Your task to perform on an android device: check android version Image 0: 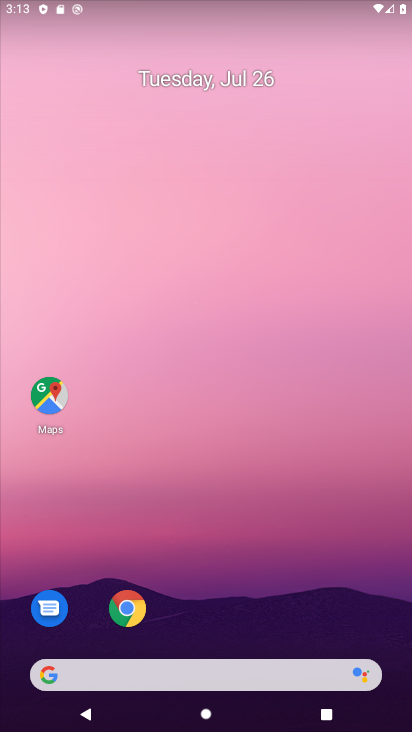
Step 0: drag from (381, 589) to (379, 139)
Your task to perform on an android device: check android version Image 1: 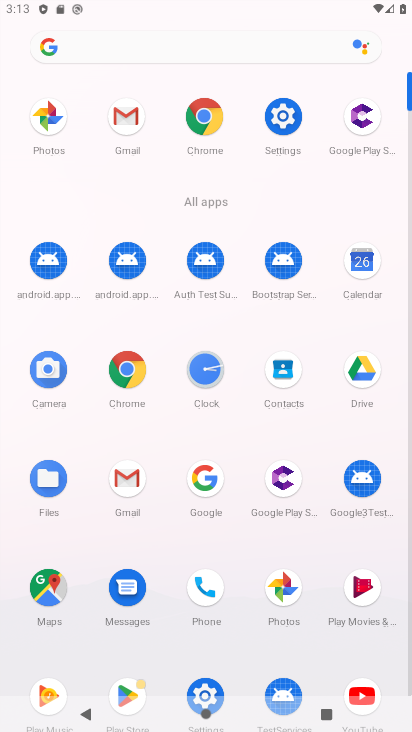
Step 1: click (205, 685)
Your task to perform on an android device: check android version Image 2: 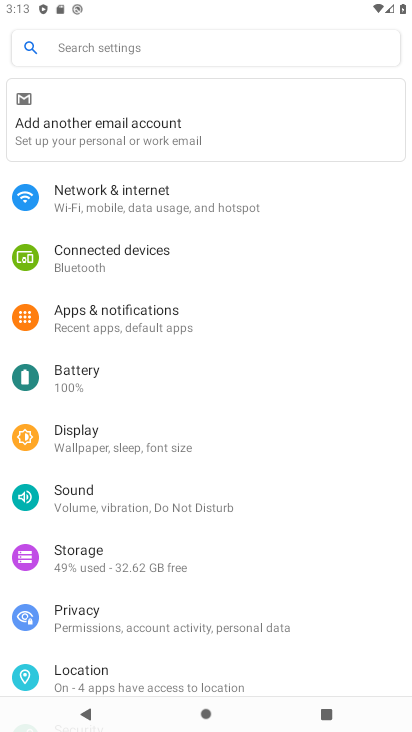
Step 2: drag from (285, 606) to (251, 219)
Your task to perform on an android device: check android version Image 3: 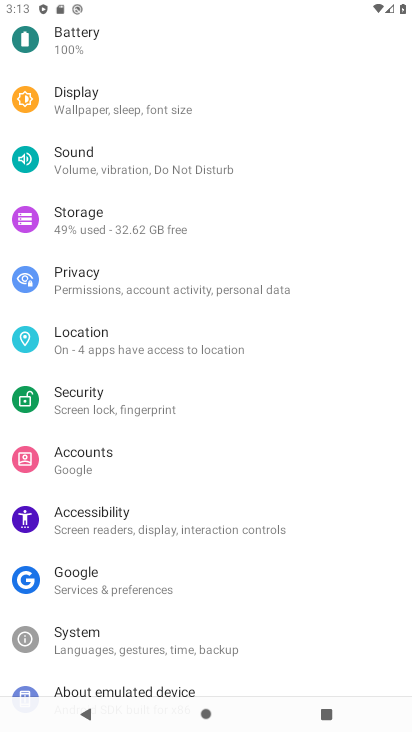
Step 3: drag from (255, 680) to (256, 200)
Your task to perform on an android device: check android version Image 4: 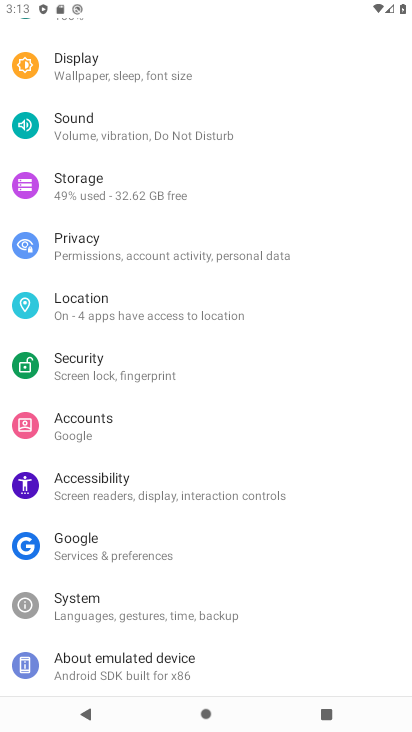
Step 4: click (121, 664)
Your task to perform on an android device: check android version Image 5: 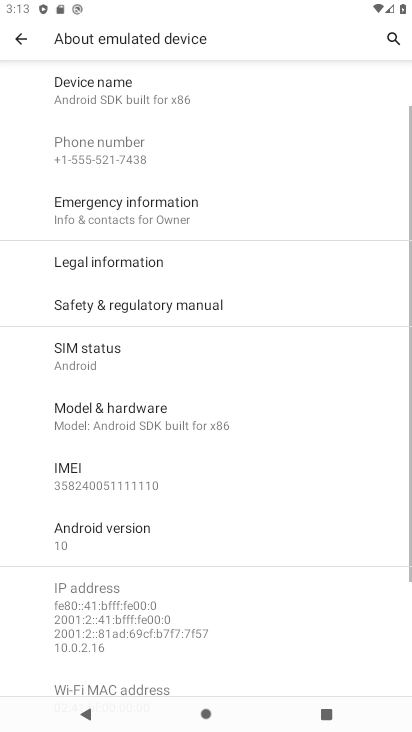
Step 5: drag from (318, 608) to (357, 255)
Your task to perform on an android device: check android version Image 6: 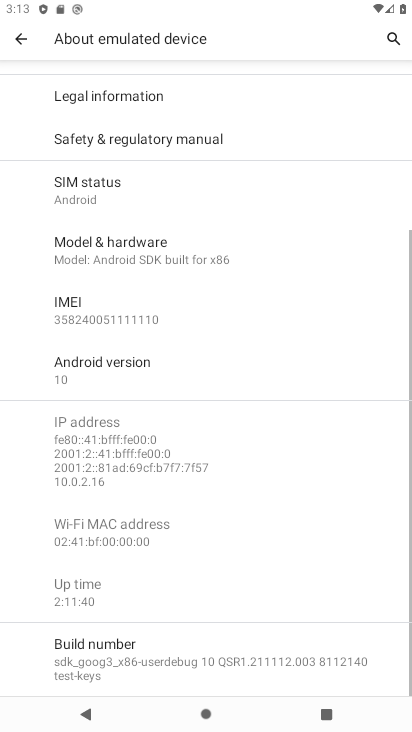
Step 6: click (97, 373)
Your task to perform on an android device: check android version Image 7: 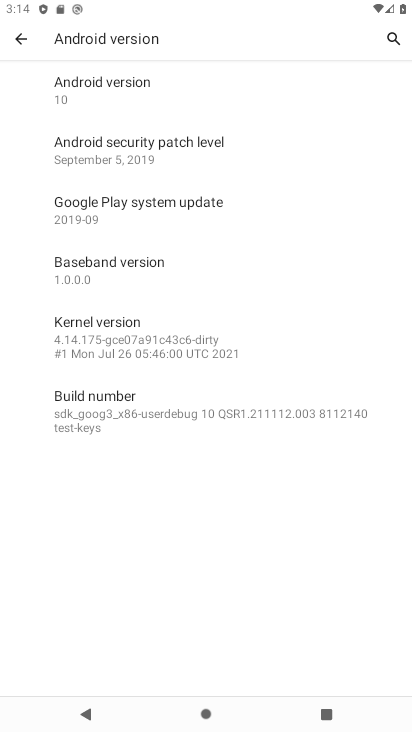
Step 7: click (94, 99)
Your task to perform on an android device: check android version Image 8: 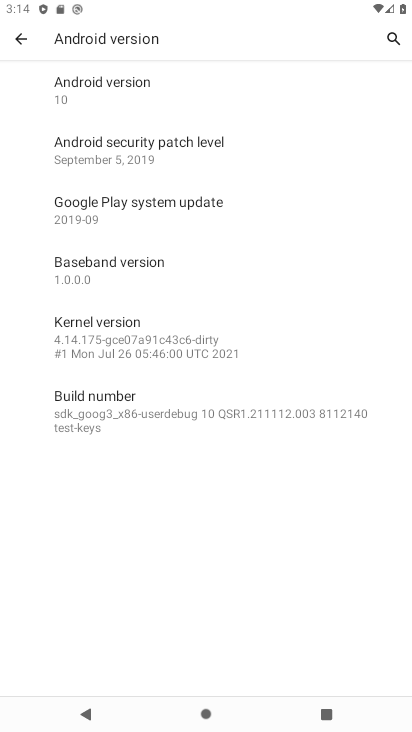
Step 8: click (94, 100)
Your task to perform on an android device: check android version Image 9: 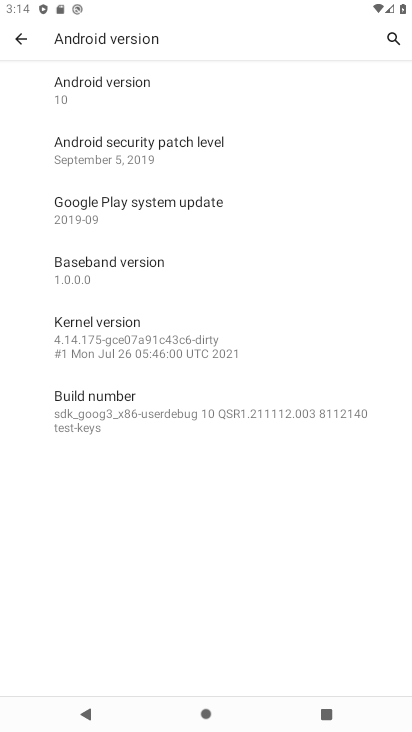
Step 9: task complete